Your task to perform on an android device: Open network settings Image 0: 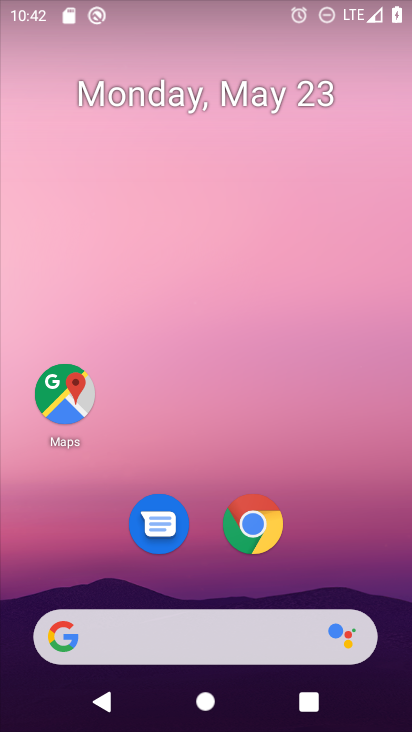
Step 0: drag from (221, 445) to (231, 15)
Your task to perform on an android device: Open network settings Image 1: 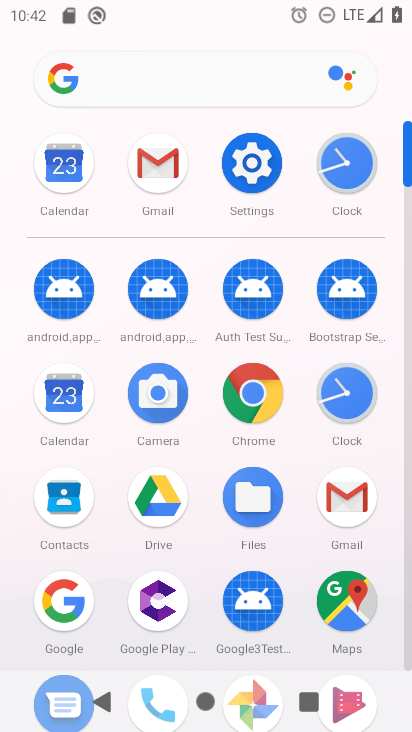
Step 1: click (251, 157)
Your task to perform on an android device: Open network settings Image 2: 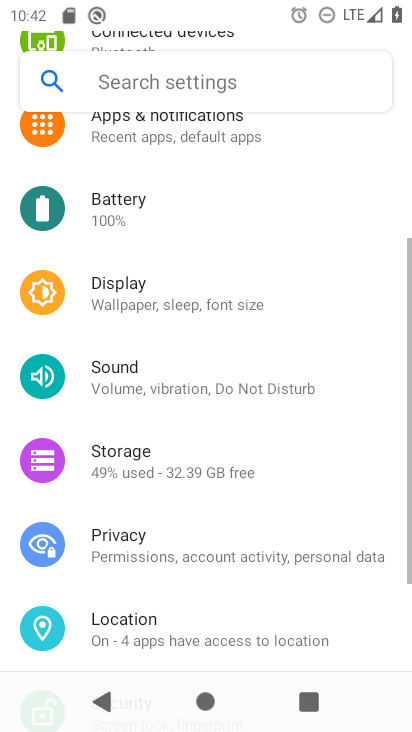
Step 2: drag from (243, 455) to (268, 205)
Your task to perform on an android device: Open network settings Image 3: 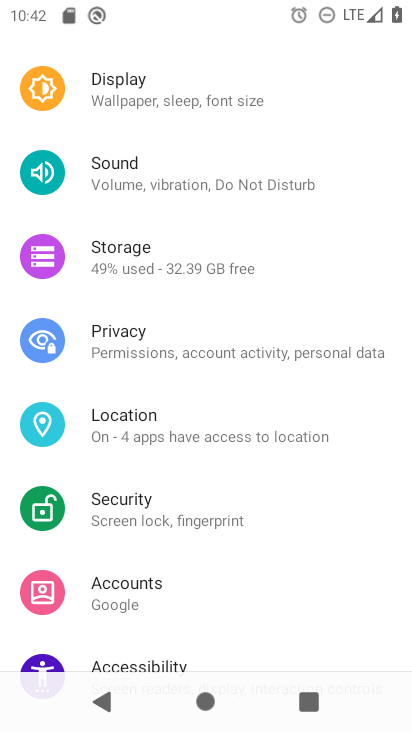
Step 3: drag from (261, 215) to (246, 574)
Your task to perform on an android device: Open network settings Image 4: 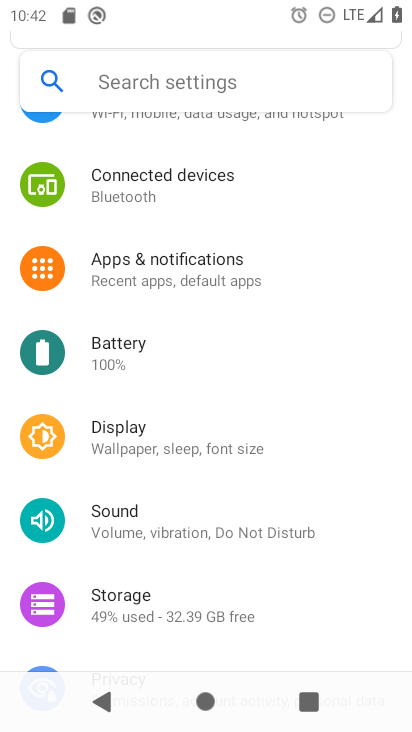
Step 4: drag from (223, 331) to (229, 600)
Your task to perform on an android device: Open network settings Image 5: 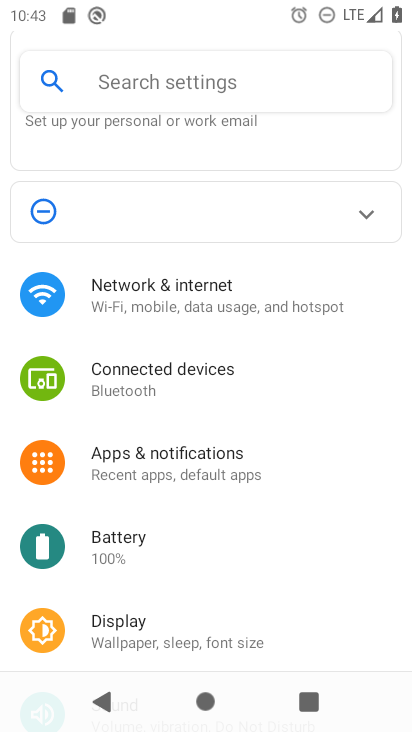
Step 5: click (232, 287)
Your task to perform on an android device: Open network settings Image 6: 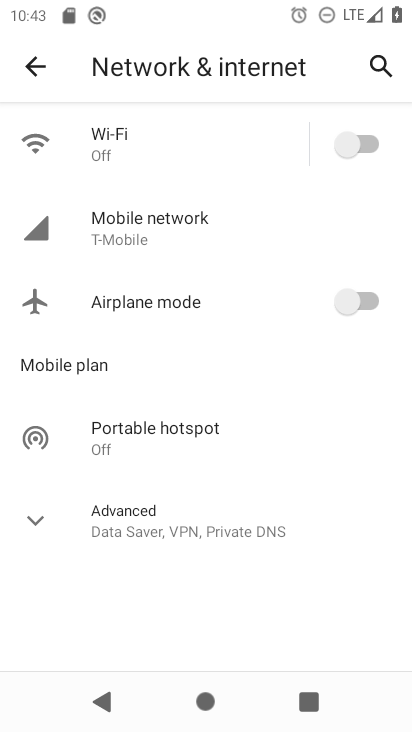
Step 6: task complete